Your task to perform on an android device: turn off smart reply in the gmail app Image 0: 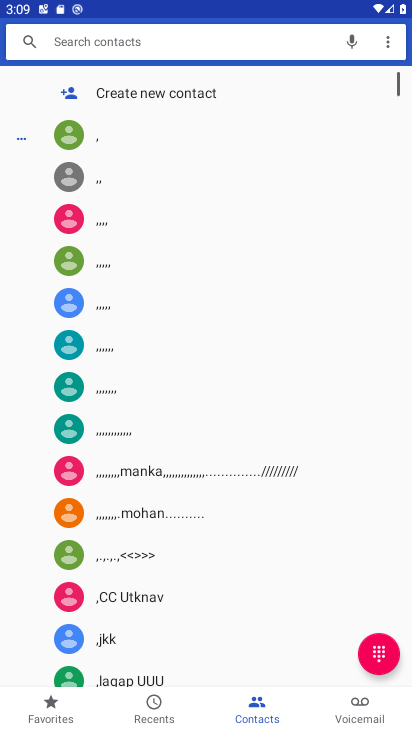
Step 0: press home button
Your task to perform on an android device: turn off smart reply in the gmail app Image 1: 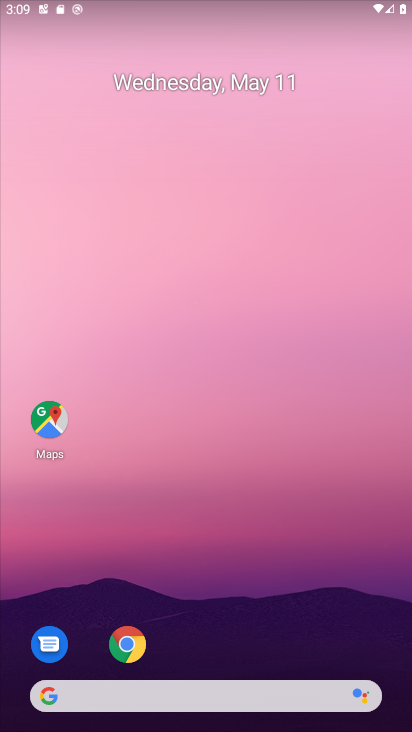
Step 1: drag from (199, 663) to (380, 518)
Your task to perform on an android device: turn off smart reply in the gmail app Image 2: 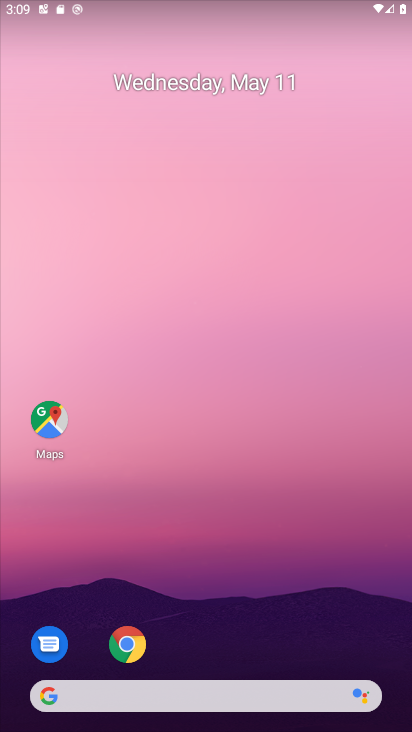
Step 2: drag from (223, 672) to (289, 3)
Your task to perform on an android device: turn off smart reply in the gmail app Image 3: 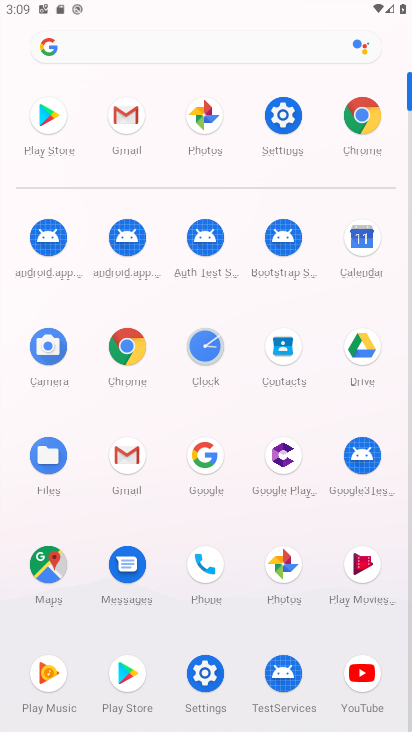
Step 3: click (129, 466)
Your task to perform on an android device: turn off smart reply in the gmail app Image 4: 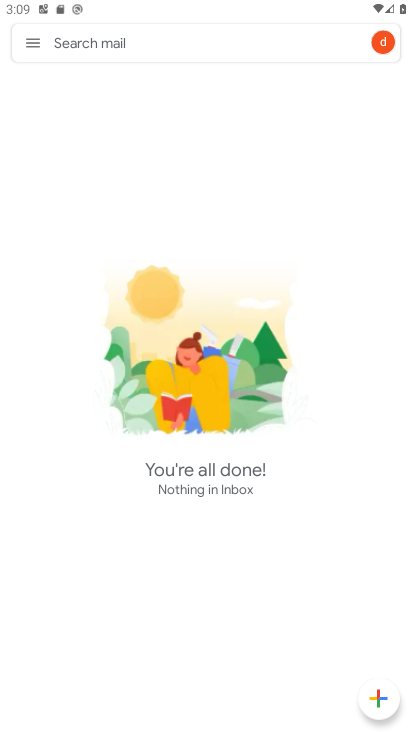
Step 4: click (28, 37)
Your task to perform on an android device: turn off smart reply in the gmail app Image 5: 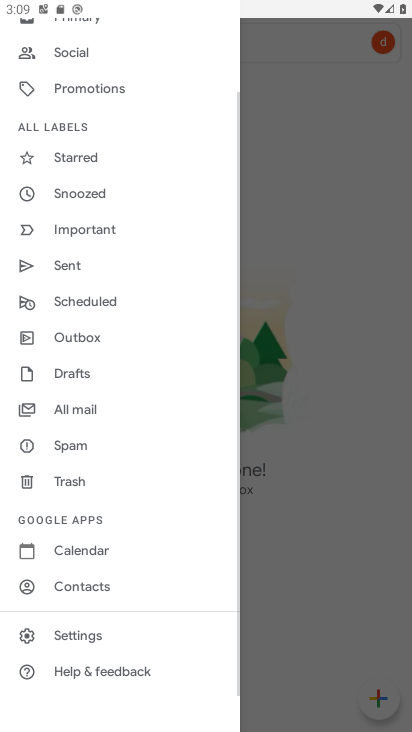
Step 5: click (107, 620)
Your task to perform on an android device: turn off smart reply in the gmail app Image 6: 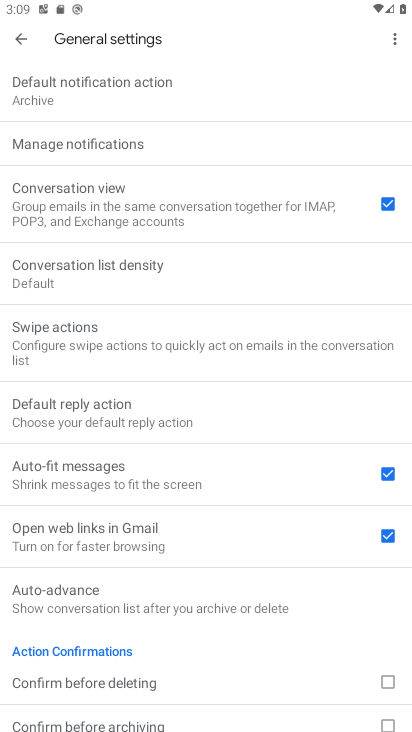
Step 6: click (18, 31)
Your task to perform on an android device: turn off smart reply in the gmail app Image 7: 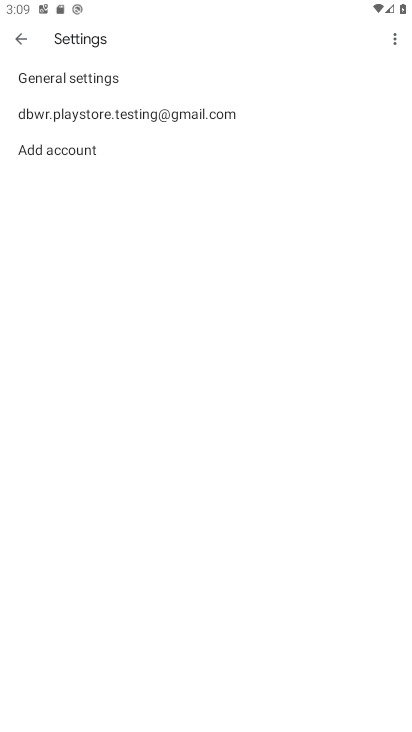
Step 7: click (74, 113)
Your task to perform on an android device: turn off smart reply in the gmail app Image 8: 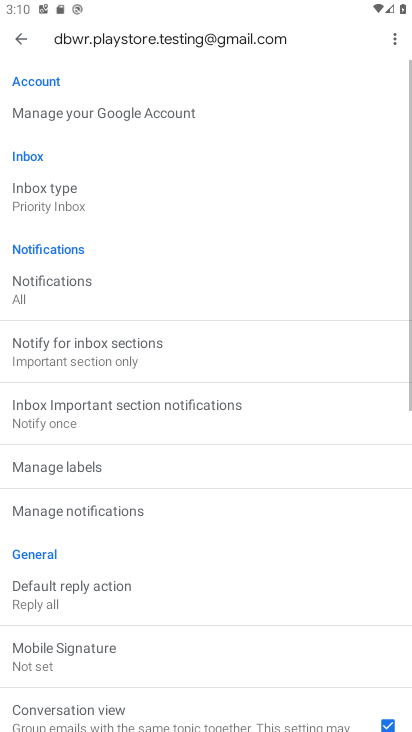
Step 8: drag from (115, 604) to (103, 131)
Your task to perform on an android device: turn off smart reply in the gmail app Image 9: 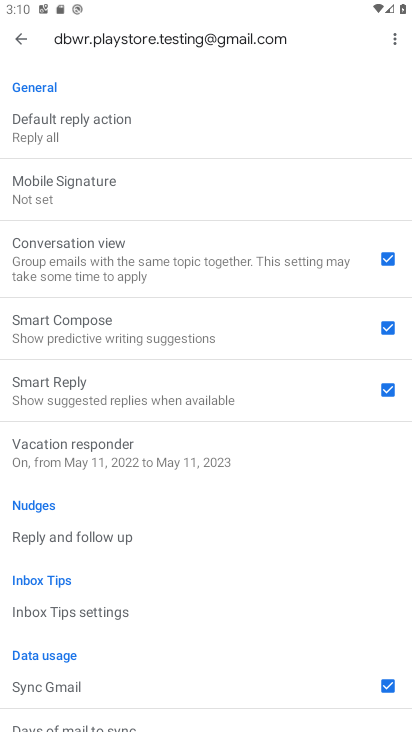
Step 9: click (391, 389)
Your task to perform on an android device: turn off smart reply in the gmail app Image 10: 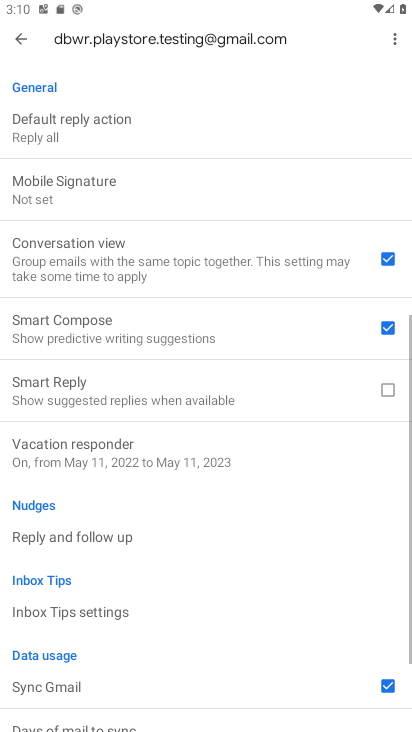
Step 10: task complete